Your task to perform on an android device: change notification settings in the gmail app Image 0: 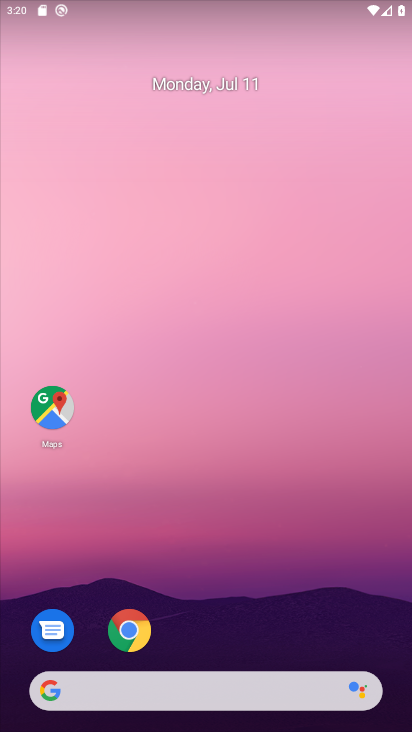
Step 0: drag from (321, 639) to (230, 131)
Your task to perform on an android device: change notification settings in the gmail app Image 1: 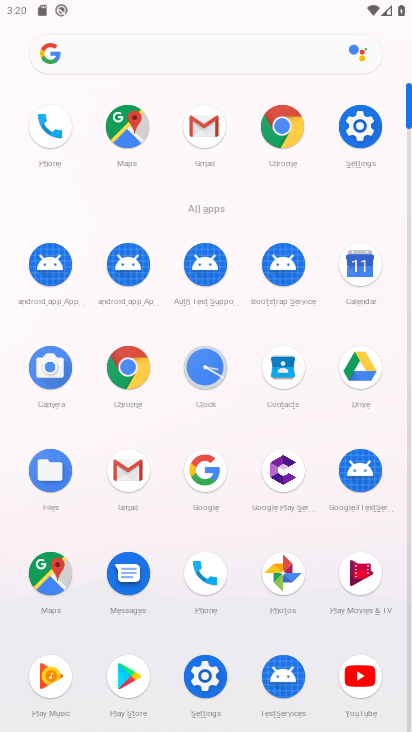
Step 1: click (200, 134)
Your task to perform on an android device: change notification settings in the gmail app Image 2: 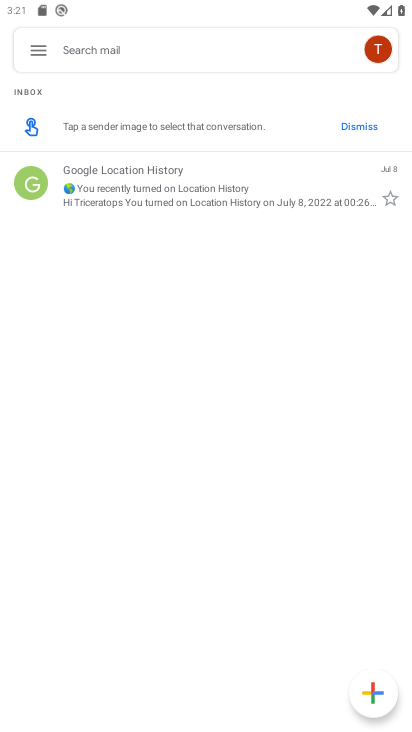
Step 2: click (36, 51)
Your task to perform on an android device: change notification settings in the gmail app Image 3: 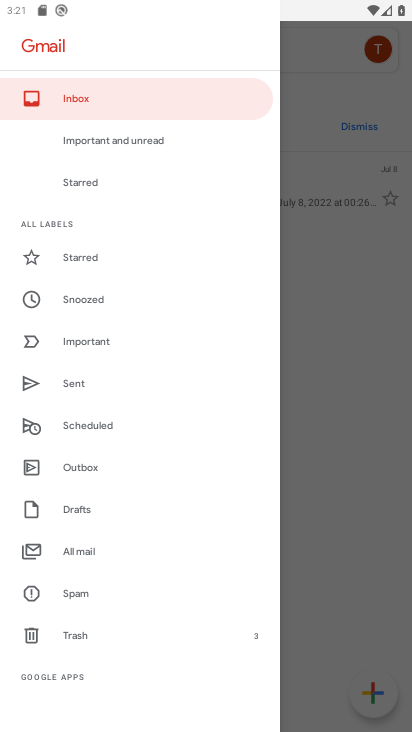
Step 3: drag from (111, 553) to (94, 348)
Your task to perform on an android device: change notification settings in the gmail app Image 4: 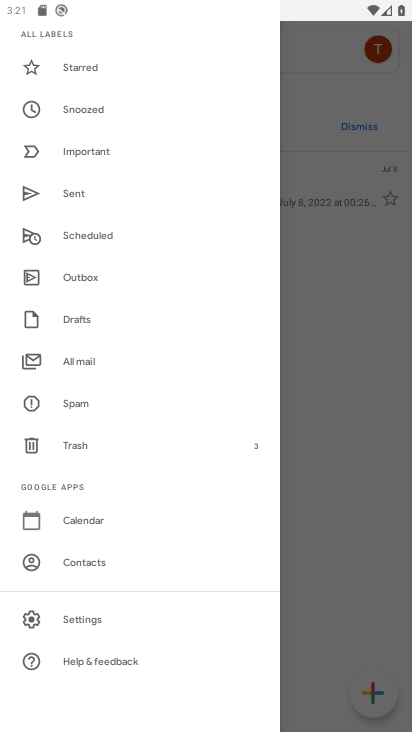
Step 4: click (91, 607)
Your task to perform on an android device: change notification settings in the gmail app Image 5: 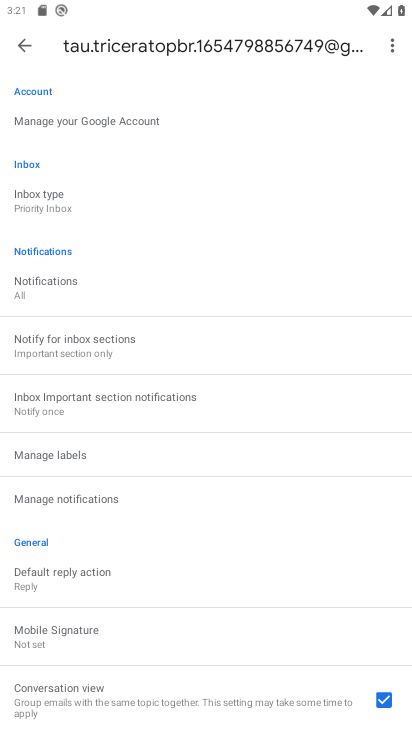
Step 5: drag from (92, 453) to (94, 315)
Your task to perform on an android device: change notification settings in the gmail app Image 6: 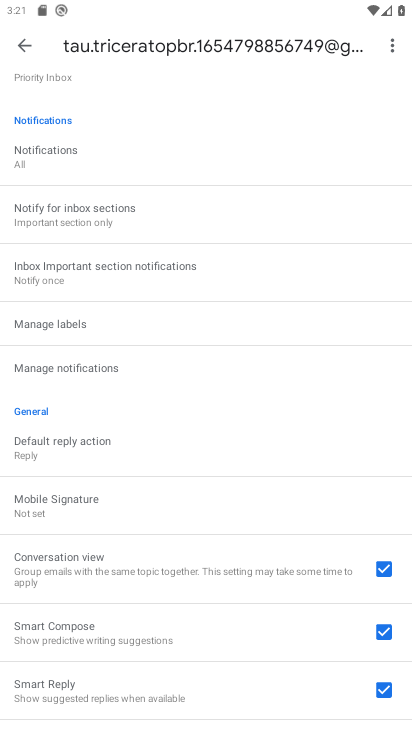
Step 6: click (22, 44)
Your task to perform on an android device: change notification settings in the gmail app Image 7: 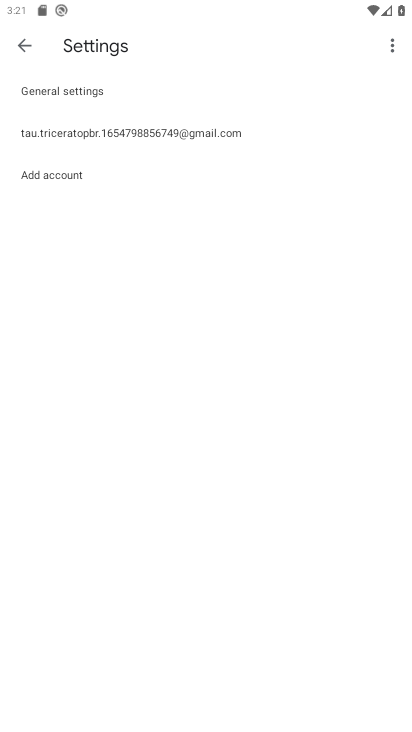
Step 7: click (42, 82)
Your task to perform on an android device: change notification settings in the gmail app Image 8: 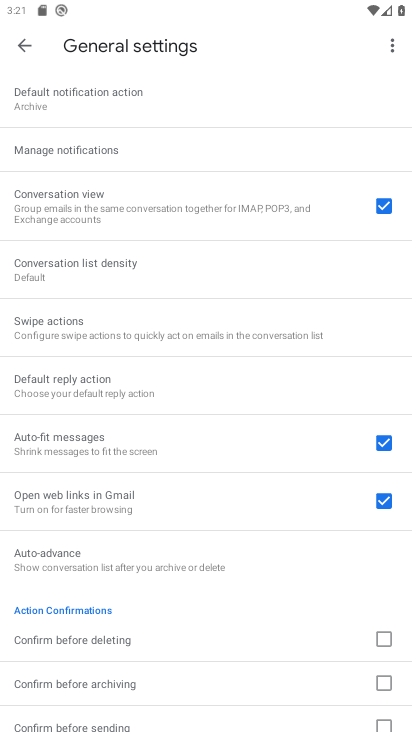
Step 8: click (74, 153)
Your task to perform on an android device: change notification settings in the gmail app Image 9: 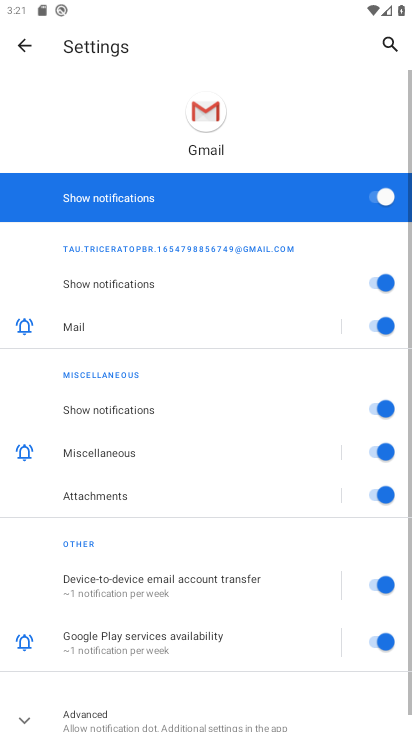
Step 9: click (245, 203)
Your task to perform on an android device: change notification settings in the gmail app Image 10: 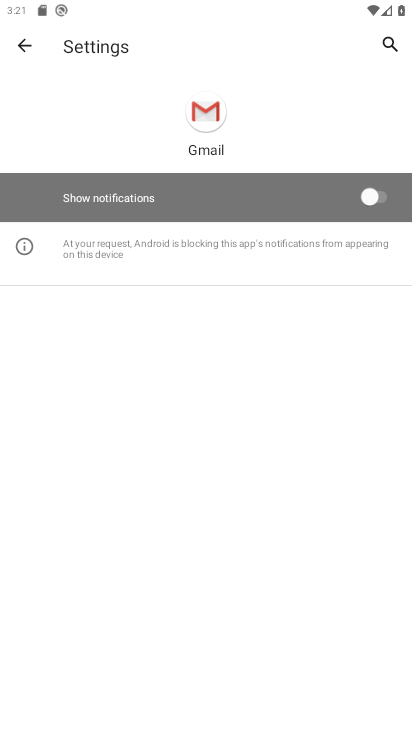
Step 10: press home button
Your task to perform on an android device: change notification settings in the gmail app Image 11: 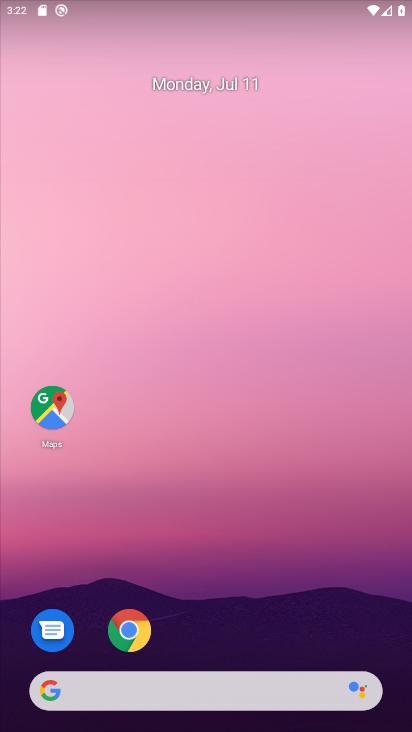
Step 11: drag from (209, 637) to (186, 318)
Your task to perform on an android device: change notification settings in the gmail app Image 12: 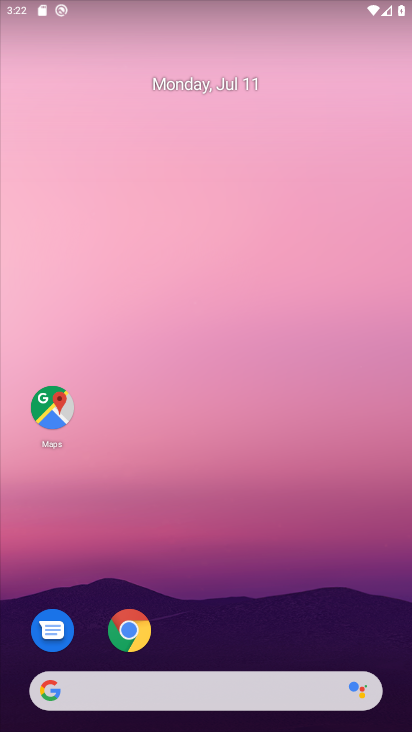
Step 12: drag from (234, 583) to (221, 175)
Your task to perform on an android device: change notification settings in the gmail app Image 13: 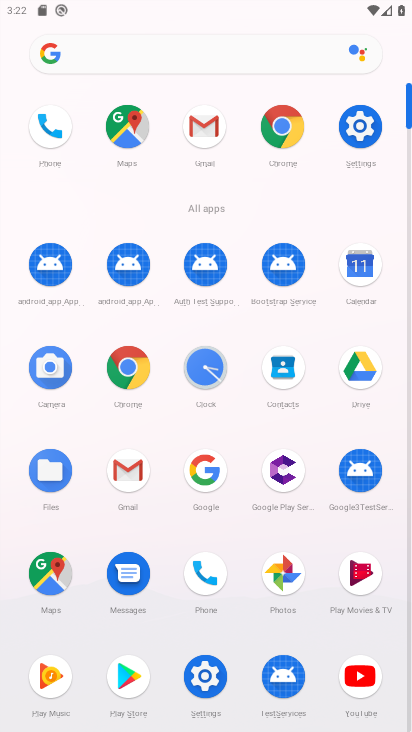
Step 13: click (376, 135)
Your task to perform on an android device: change notification settings in the gmail app Image 14: 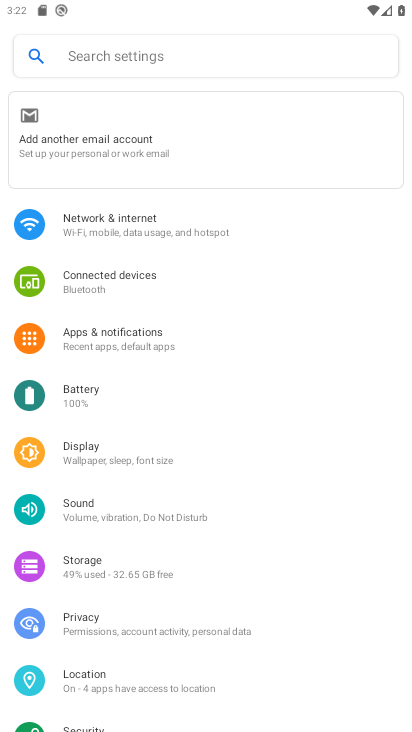
Step 14: click (111, 321)
Your task to perform on an android device: change notification settings in the gmail app Image 15: 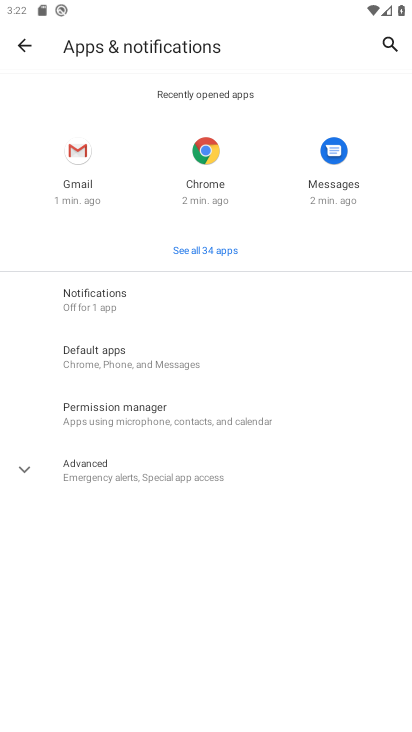
Step 15: click (108, 313)
Your task to perform on an android device: change notification settings in the gmail app Image 16: 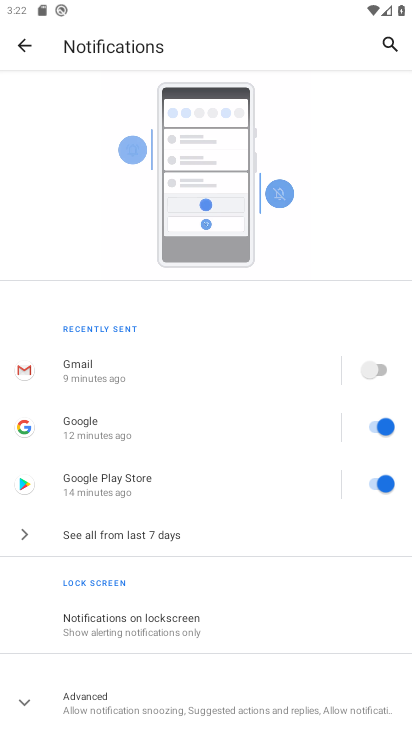
Step 16: task complete